Your task to perform on an android device: Open Chrome and go to the settings page Image 0: 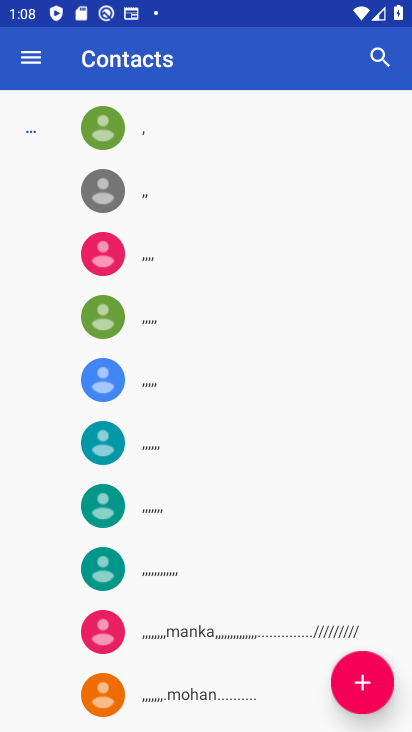
Step 0: press home button
Your task to perform on an android device: Open Chrome and go to the settings page Image 1: 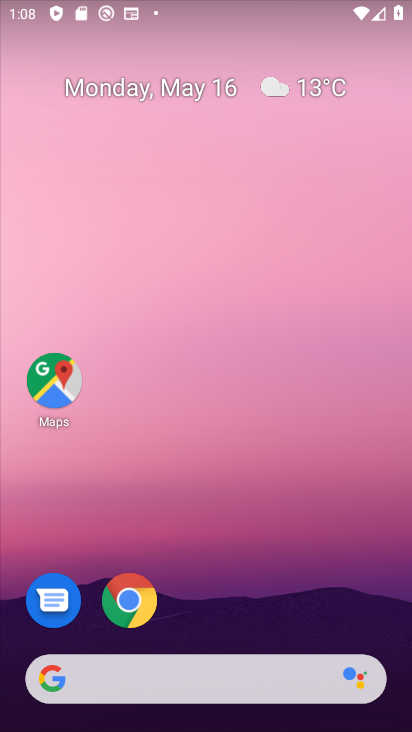
Step 1: click (131, 608)
Your task to perform on an android device: Open Chrome and go to the settings page Image 2: 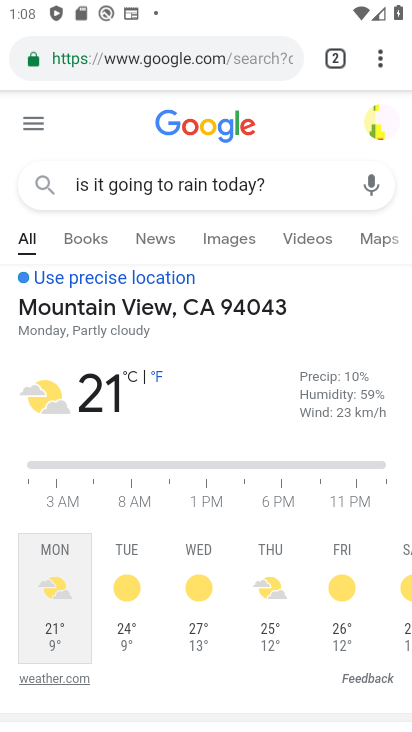
Step 2: click (380, 53)
Your task to perform on an android device: Open Chrome and go to the settings page Image 3: 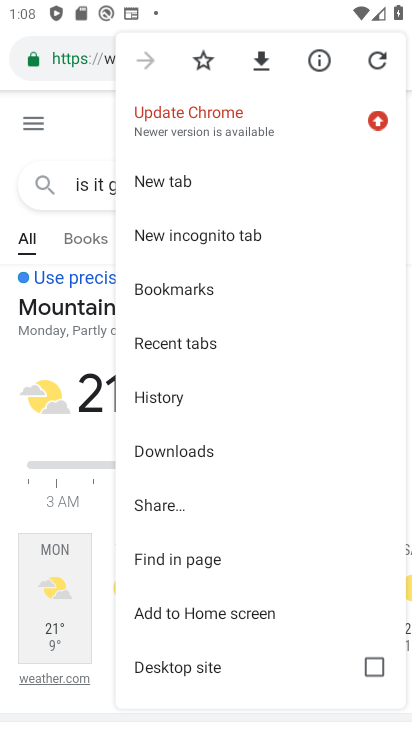
Step 3: drag from (188, 630) to (190, 285)
Your task to perform on an android device: Open Chrome and go to the settings page Image 4: 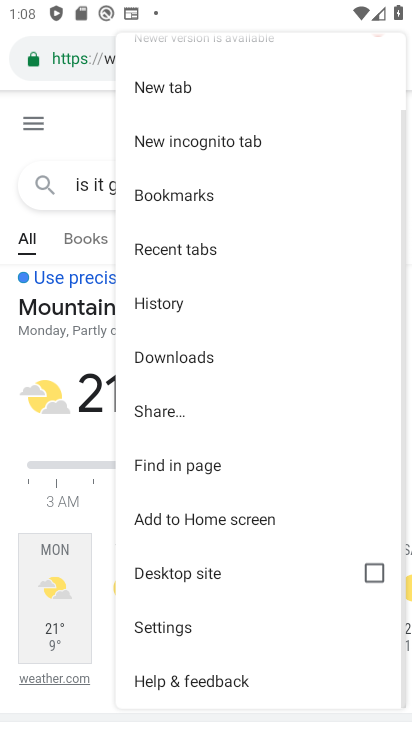
Step 4: click (175, 632)
Your task to perform on an android device: Open Chrome and go to the settings page Image 5: 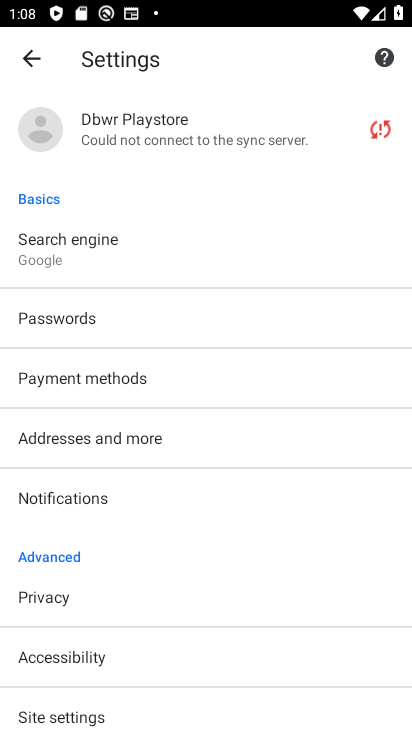
Step 5: task complete